Your task to perform on an android device: Open location settings Image 0: 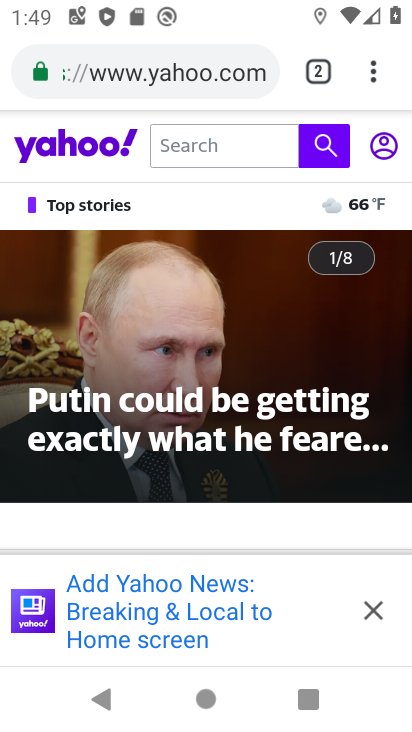
Step 0: press home button
Your task to perform on an android device: Open location settings Image 1: 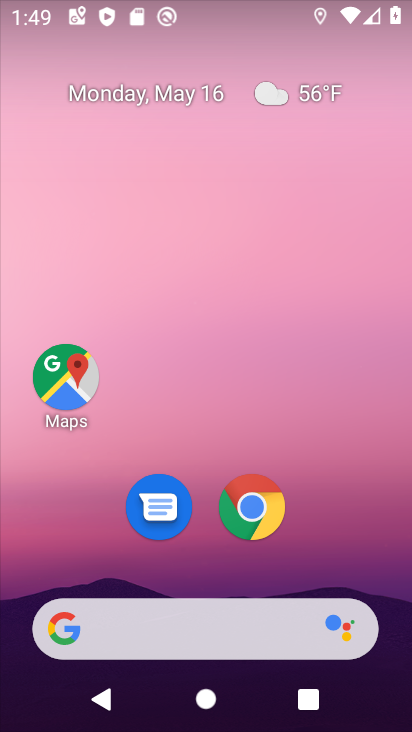
Step 1: drag from (195, 554) to (228, 244)
Your task to perform on an android device: Open location settings Image 2: 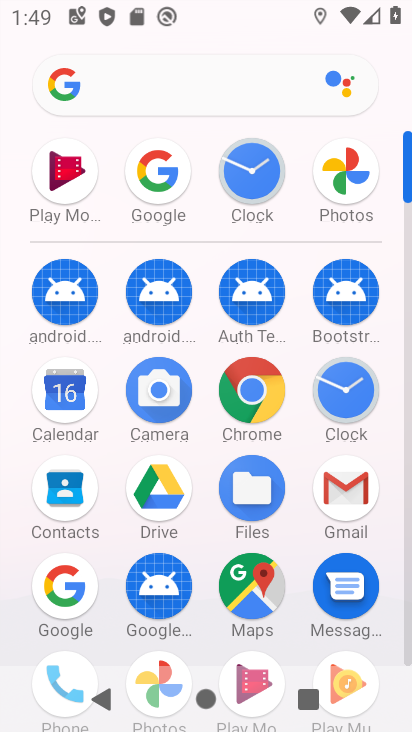
Step 2: drag from (202, 583) to (223, 99)
Your task to perform on an android device: Open location settings Image 3: 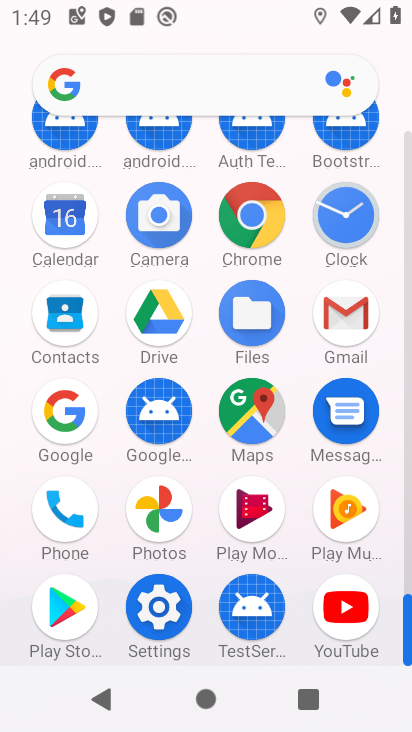
Step 3: click (154, 612)
Your task to perform on an android device: Open location settings Image 4: 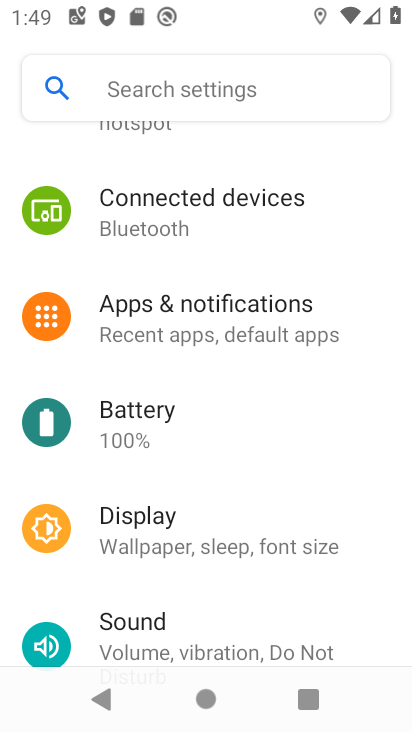
Step 4: drag from (210, 513) to (236, 58)
Your task to perform on an android device: Open location settings Image 5: 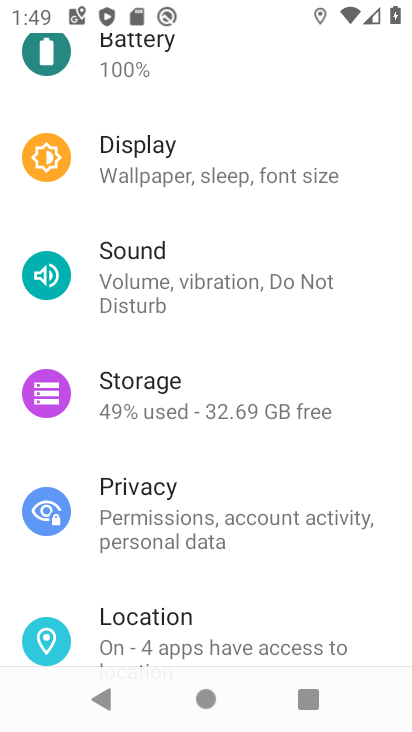
Step 5: click (170, 617)
Your task to perform on an android device: Open location settings Image 6: 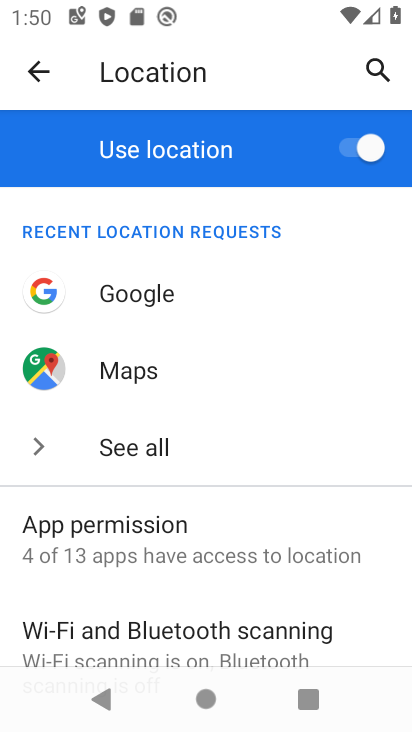
Step 6: task complete